Your task to perform on an android device: turn off notifications settings in the gmail app Image 0: 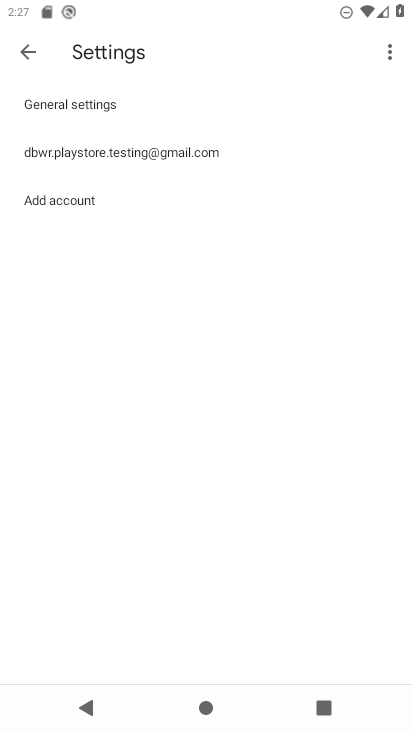
Step 0: press home button
Your task to perform on an android device: turn off notifications settings in the gmail app Image 1: 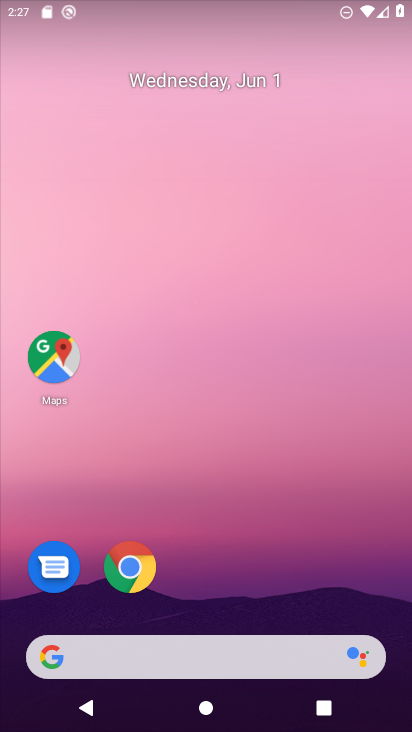
Step 1: drag from (193, 618) to (278, 94)
Your task to perform on an android device: turn off notifications settings in the gmail app Image 2: 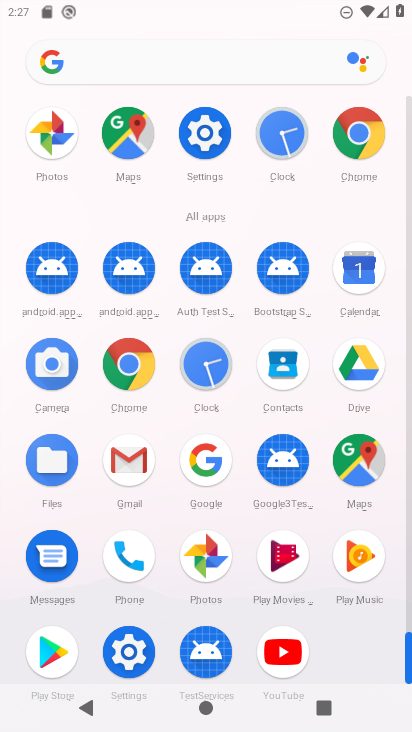
Step 2: click (140, 472)
Your task to perform on an android device: turn off notifications settings in the gmail app Image 3: 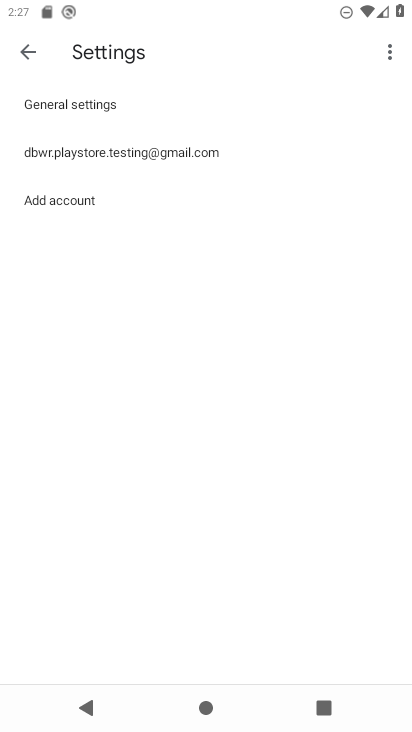
Step 3: click (188, 147)
Your task to perform on an android device: turn off notifications settings in the gmail app Image 4: 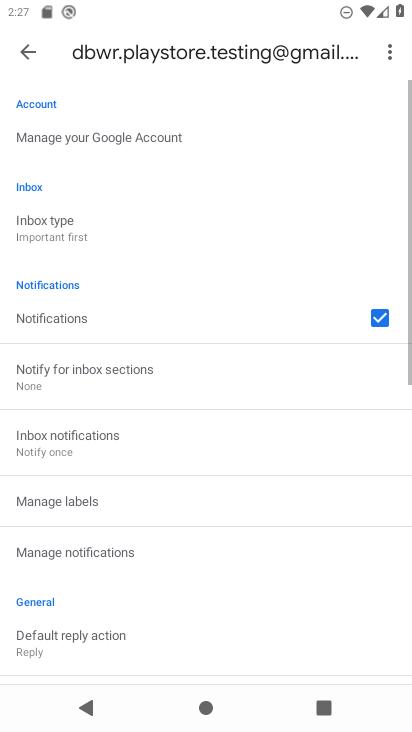
Step 4: drag from (146, 599) to (226, 353)
Your task to perform on an android device: turn off notifications settings in the gmail app Image 5: 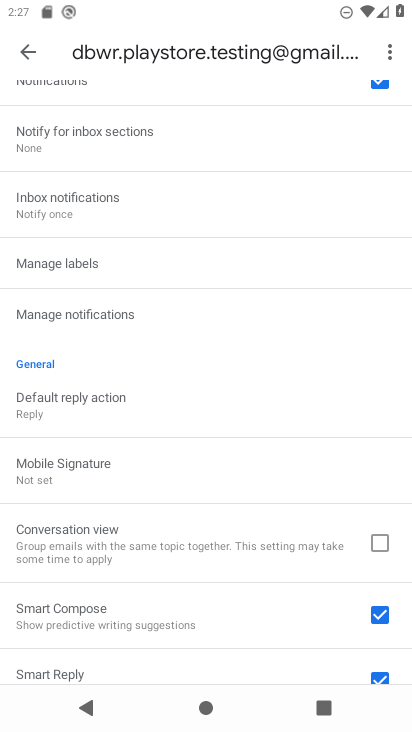
Step 5: click (177, 319)
Your task to perform on an android device: turn off notifications settings in the gmail app Image 6: 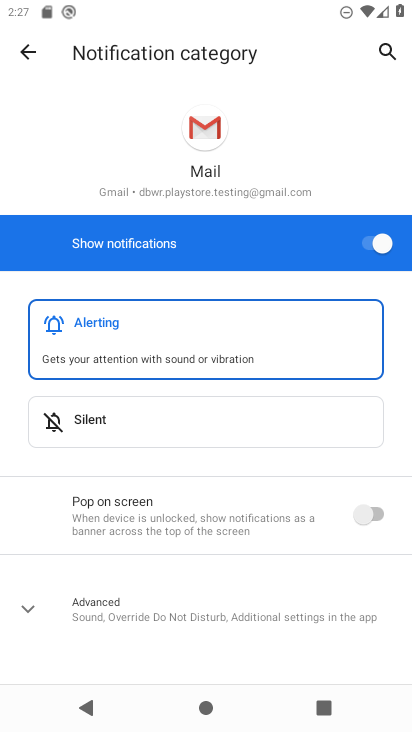
Step 6: click (358, 242)
Your task to perform on an android device: turn off notifications settings in the gmail app Image 7: 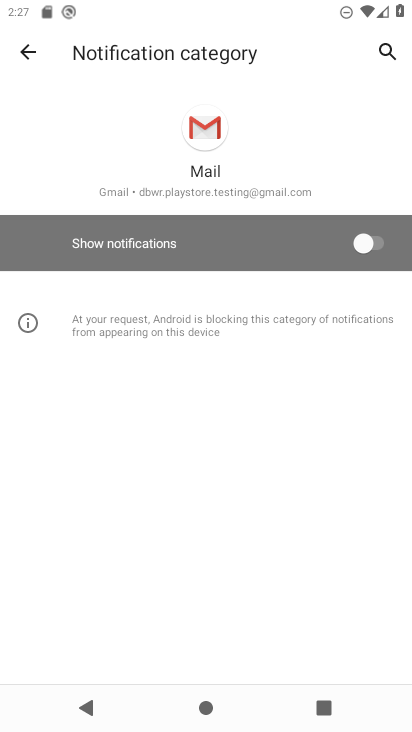
Step 7: task complete